Your task to perform on an android device: all mails in gmail Image 0: 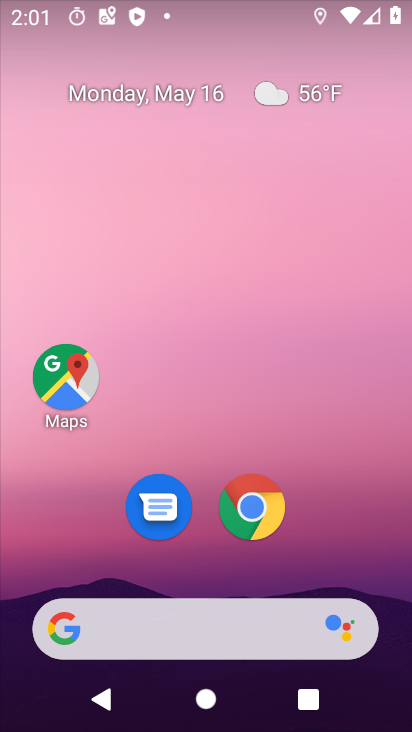
Step 0: click (252, 510)
Your task to perform on an android device: all mails in gmail Image 1: 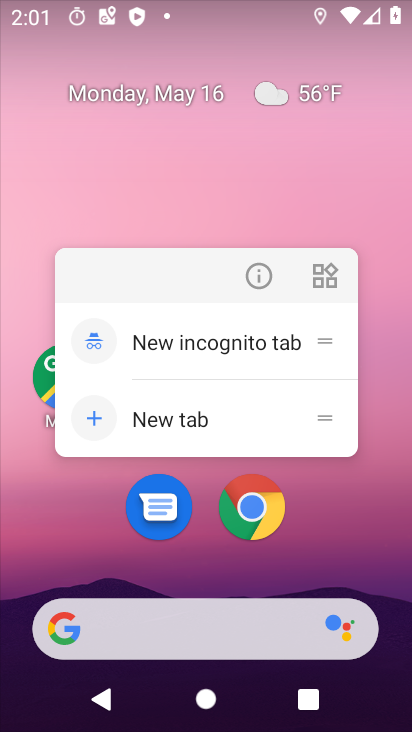
Step 1: click (396, 254)
Your task to perform on an android device: all mails in gmail Image 2: 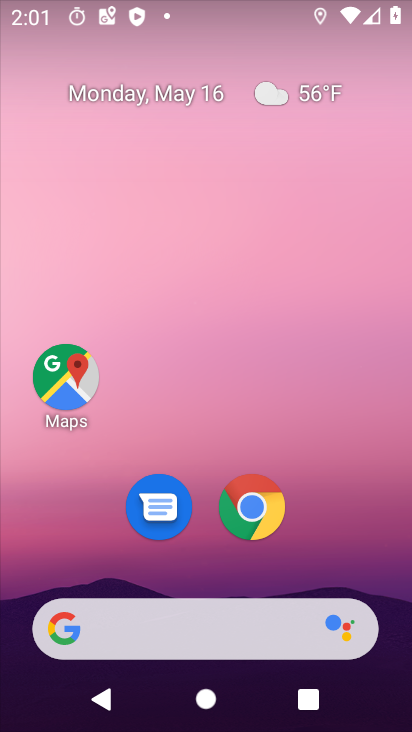
Step 2: drag from (201, 557) to (186, 28)
Your task to perform on an android device: all mails in gmail Image 3: 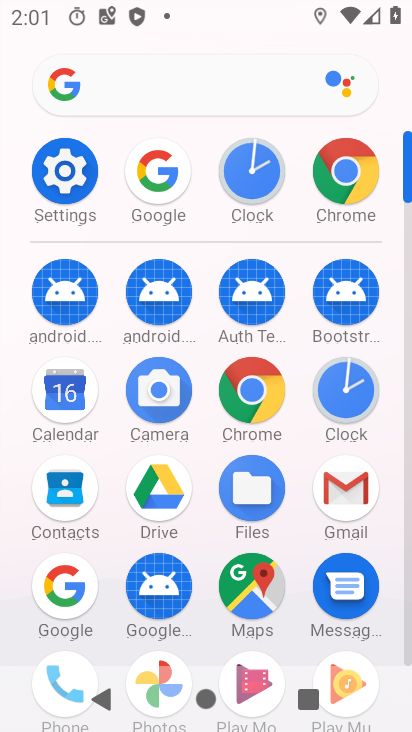
Step 3: click (350, 475)
Your task to perform on an android device: all mails in gmail Image 4: 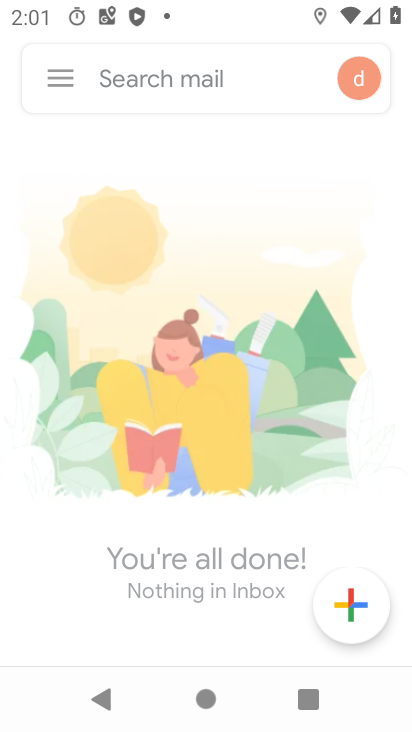
Step 4: click (44, 80)
Your task to perform on an android device: all mails in gmail Image 5: 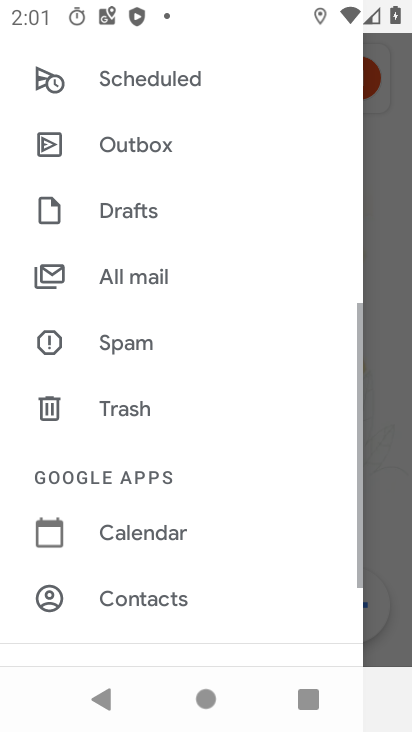
Step 5: click (148, 282)
Your task to perform on an android device: all mails in gmail Image 6: 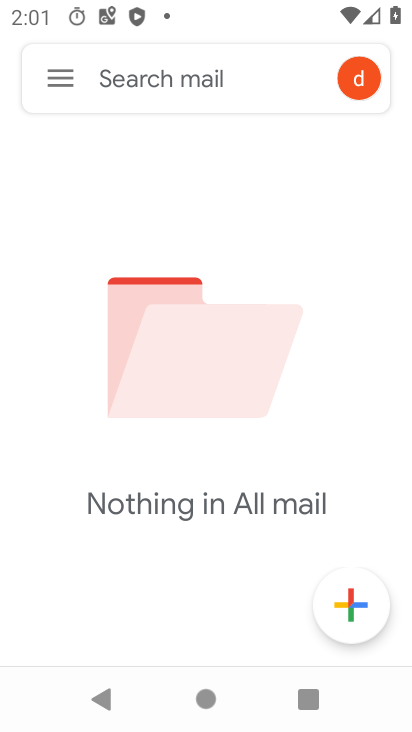
Step 6: task complete